Your task to perform on an android device: open chrome privacy settings Image 0: 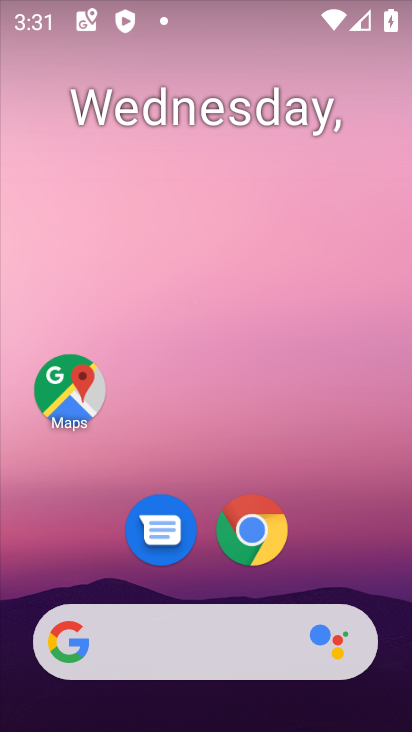
Step 0: drag from (311, 576) to (357, 78)
Your task to perform on an android device: open chrome privacy settings Image 1: 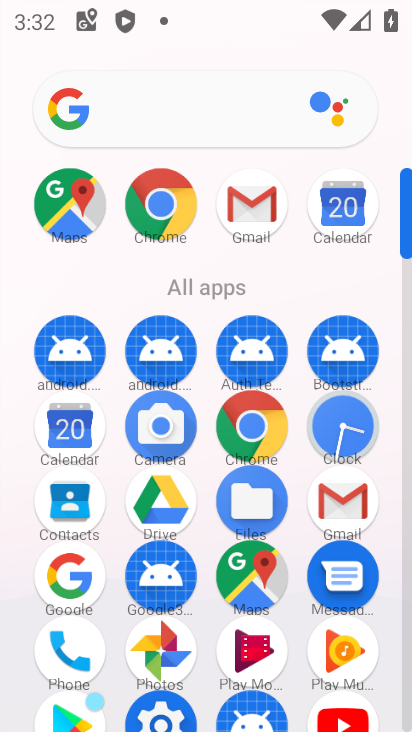
Step 1: click (265, 419)
Your task to perform on an android device: open chrome privacy settings Image 2: 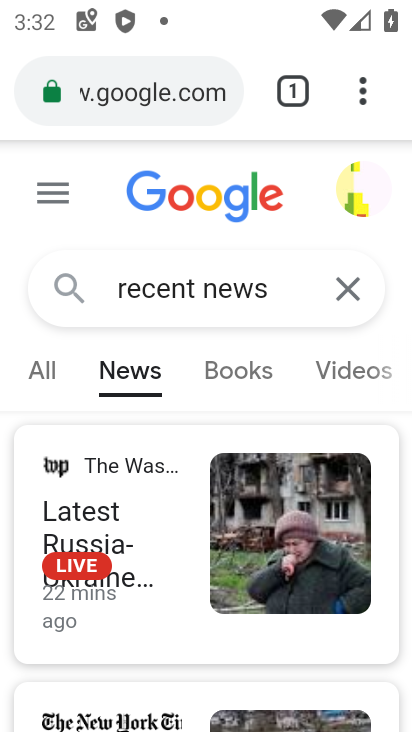
Step 2: drag from (363, 87) to (92, 564)
Your task to perform on an android device: open chrome privacy settings Image 3: 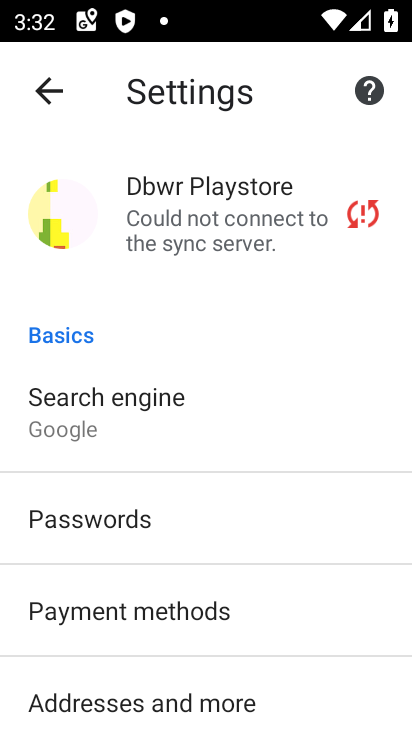
Step 3: drag from (311, 668) to (293, 258)
Your task to perform on an android device: open chrome privacy settings Image 4: 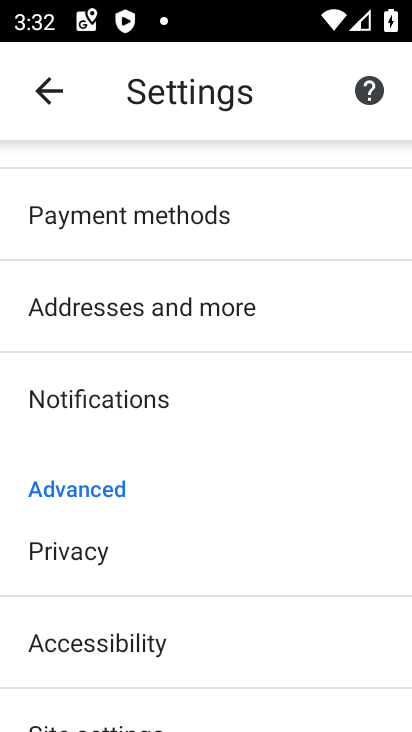
Step 4: click (37, 556)
Your task to perform on an android device: open chrome privacy settings Image 5: 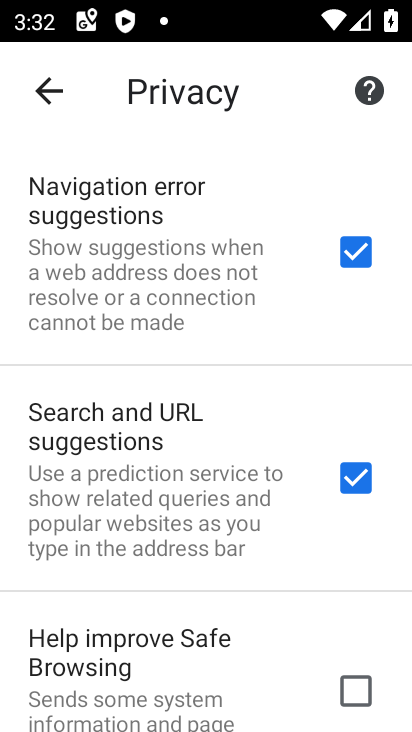
Step 5: task complete